Your task to perform on an android device: toggle notifications settings in the gmail app Image 0: 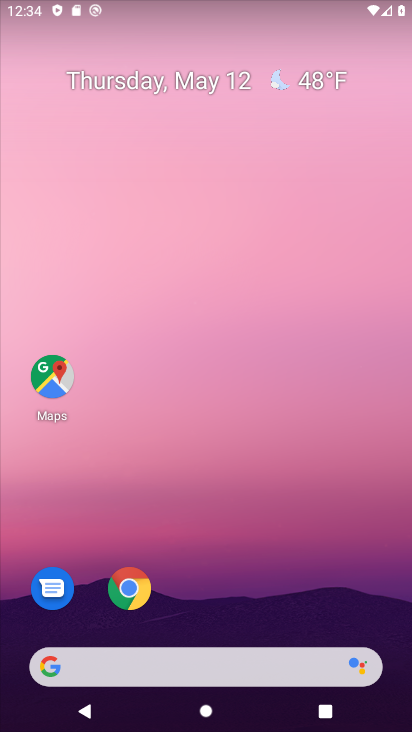
Step 0: drag from (296, 586) to (167, 51)
Your task to perform on an android device: toggle notifications settings in the gmail app Image 1: 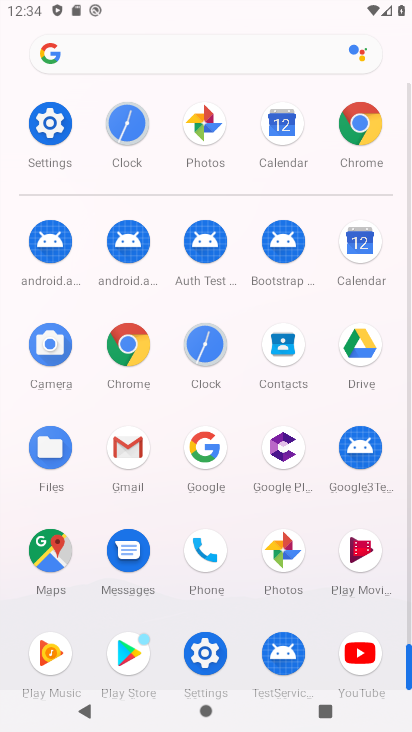
Step 1: click (114, 447)
Your task to perform on an android device: toggle notifications settings in the gmail app Image 2: 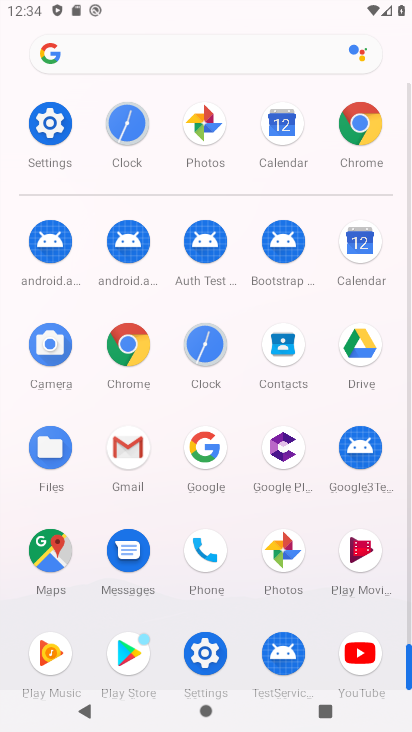
Step 2: click (114, 447)
Your task to perform on an android device: toggle notifications settings in the gmail app Image 3: 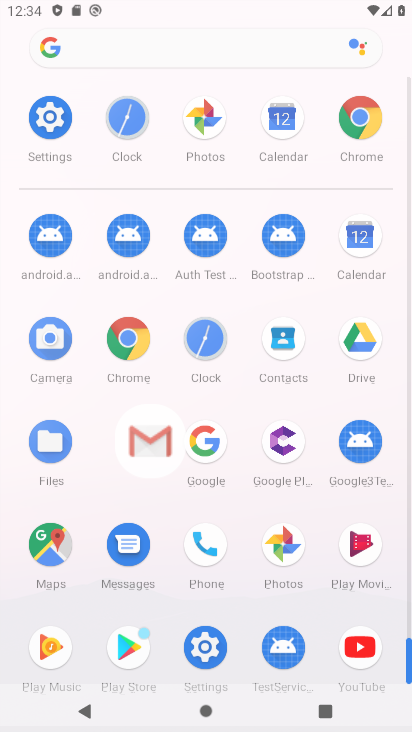
Step 3: click (115, 447)
Your task to perform on an android device: toggle notifications settings in the gmail app Image 4: 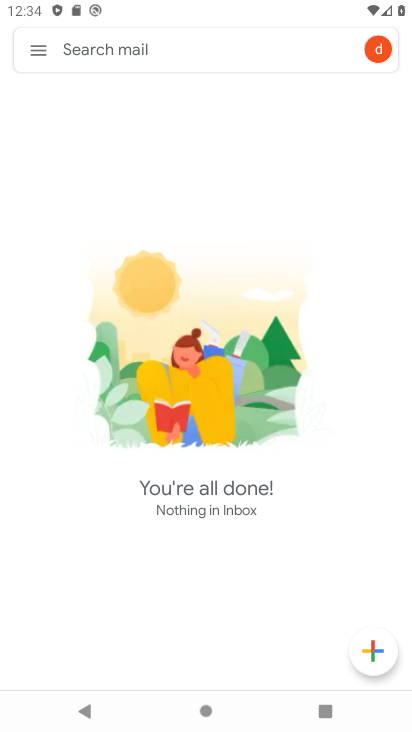
Step 4: click (44, 54)
Your task to perform on an android device: toggle notifications settings in the gmail app Image 5: 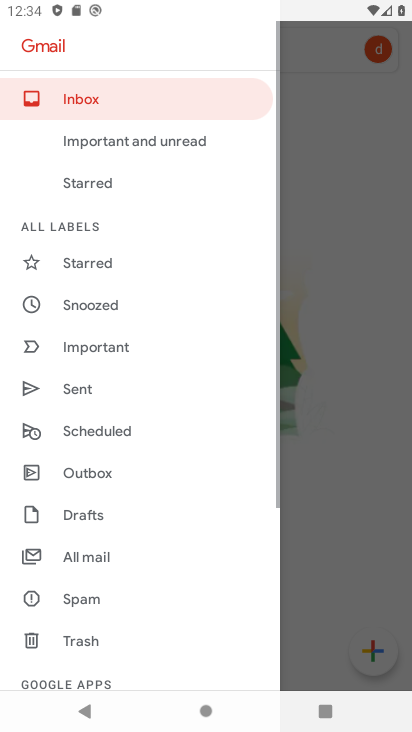
Step 5: drag from (100, 510) to (88, 164)
Your task to perform on an android device: toggle notifications settings in the gmail app Image 6: 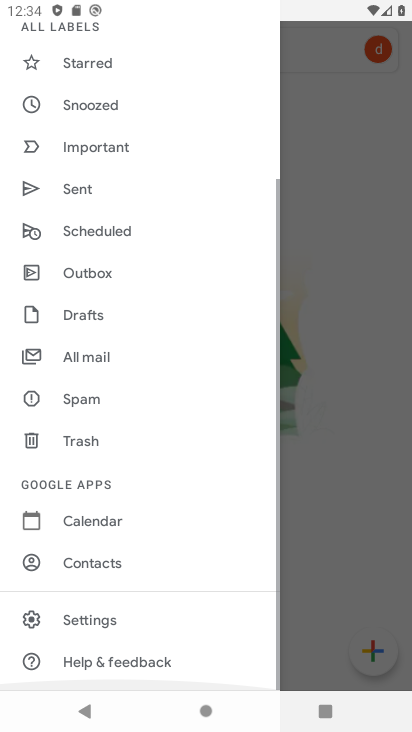
Step 6: drag from (100, 411) to (141, 68)
Your task to perform on an android device: toggle notifications settings in the gmail app Image 7: 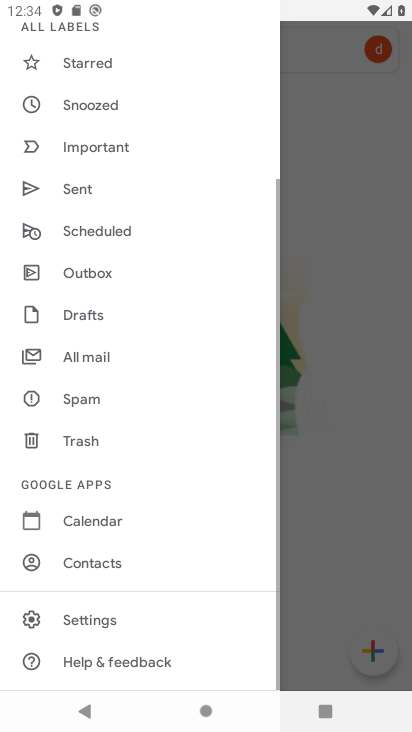
Step 7: click (64, 616)
Your task to perform on an android device: toggle notifications settings in the gmail app Image 8: 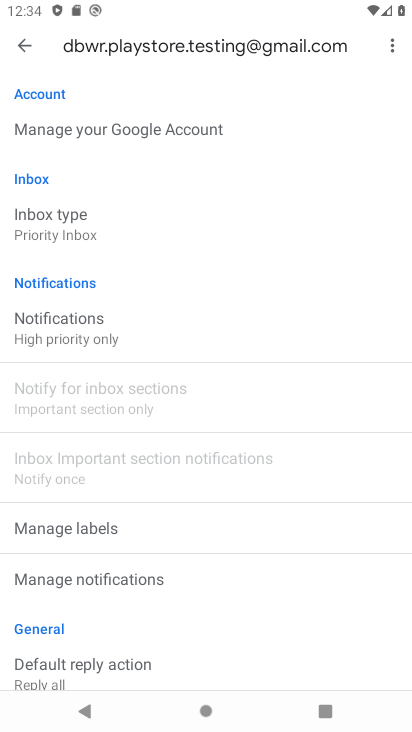
Step 8: click (60, 313)
Your task to perform on an android device: toggle notifications settings in the gmail app Image 9: 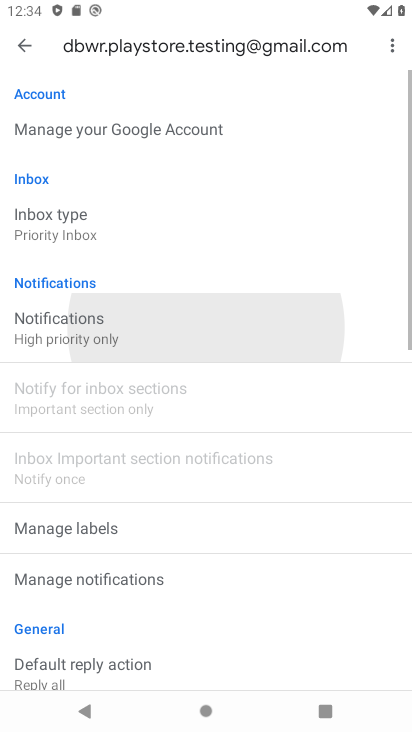
Step 9: click (60, 313)
Your task to perform on an android device: toggle notifications settings in the gmail app Image 10: 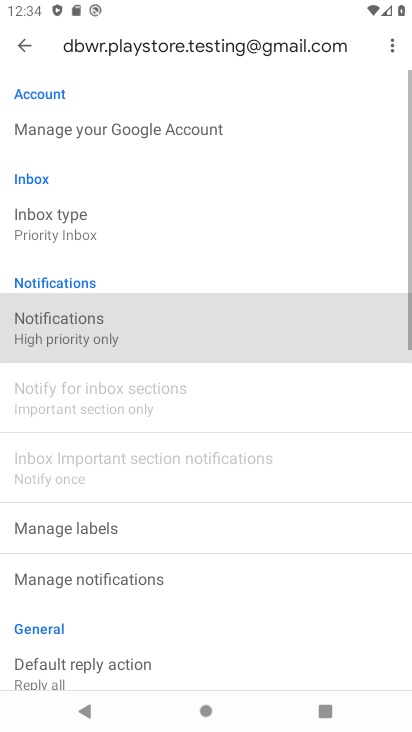
Step 10: click (60, 313)
Your task to perform on an android device: toggle notifications settings in the gmail app Image 11: 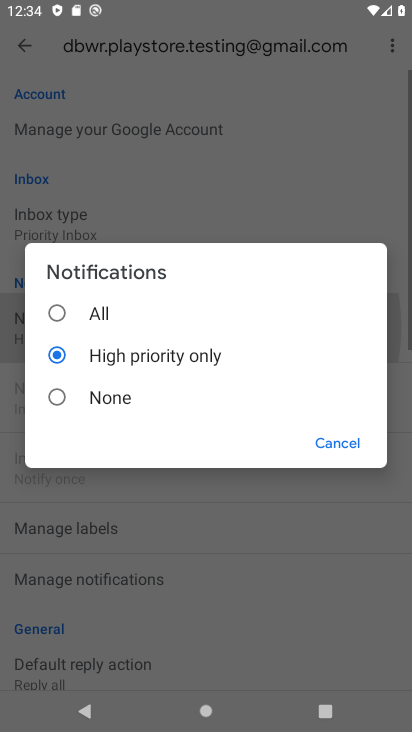
Step 11: click (60, 313)
Your task to perform on an android device: toggle notifications settings in the gmail app Image 12: 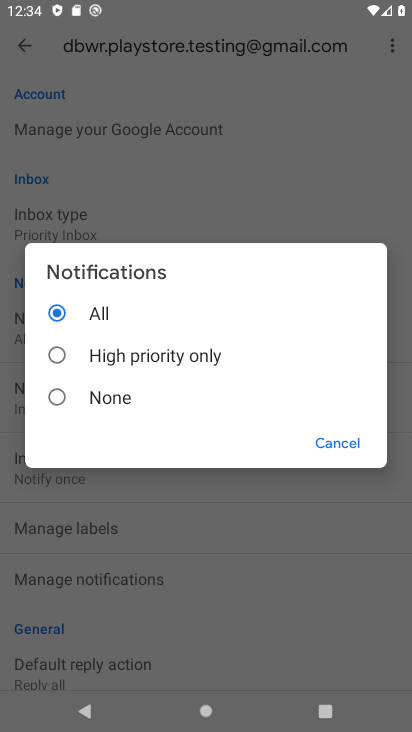
Step 12: click (61, 352)
Your task to perform on an android device: toggle notifications settings in the gmail app Image 13: 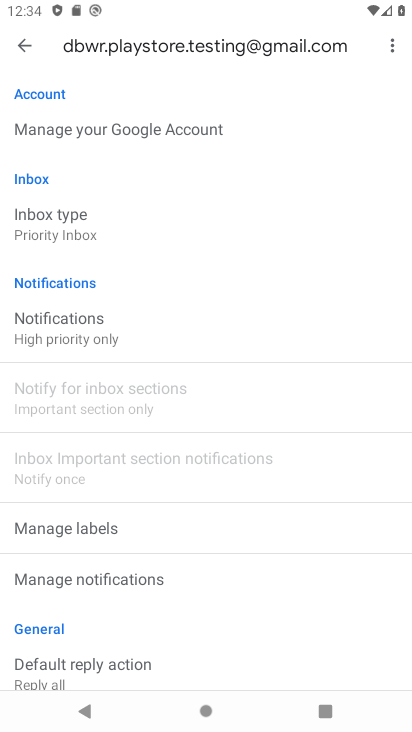
Step 13: task complete